Your task to perform on an android device: When is my next appointment? Image 0: 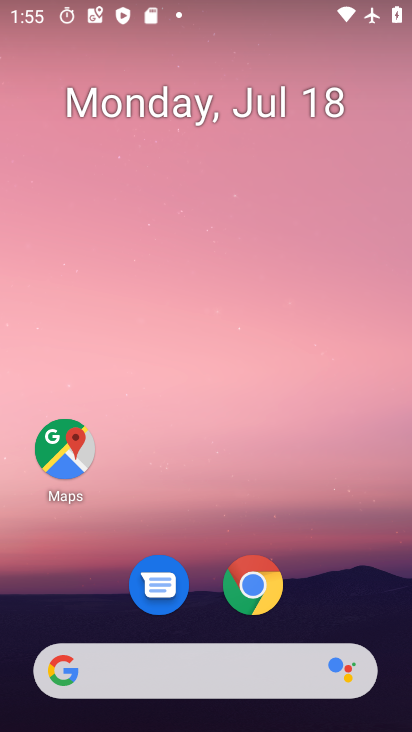
Step 0: press home button
Your task to perform on an android device: When is my next appointment? Image 1: 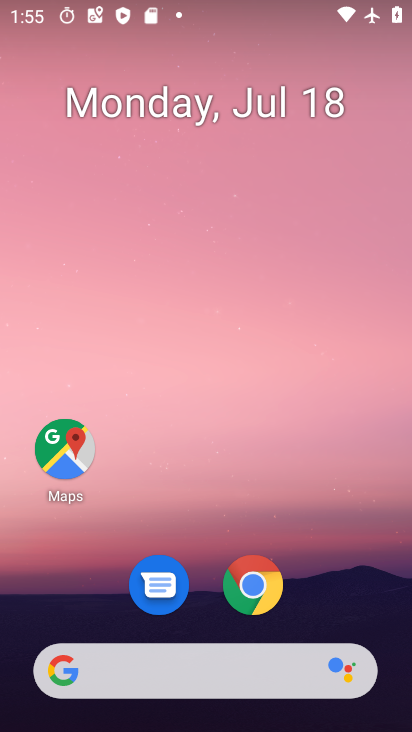
Step 1: drag from (177, 665) to (283, 213)
Your task to perform on an android device: When is my next appointment? Image 2: 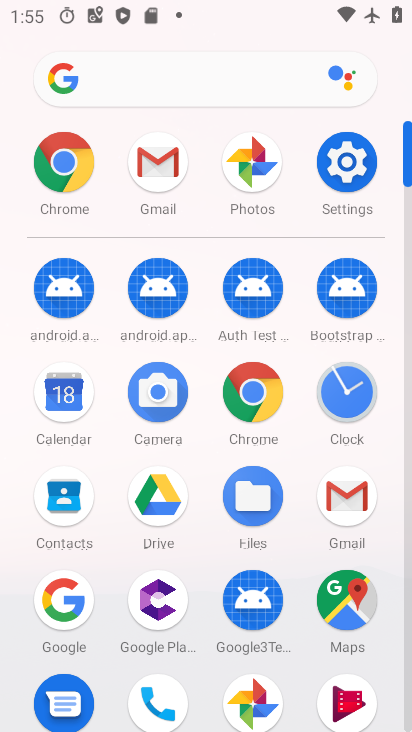
Step 2: click (72, 389)
Your task to perform on an android device: When is my next appointment? Image 3: 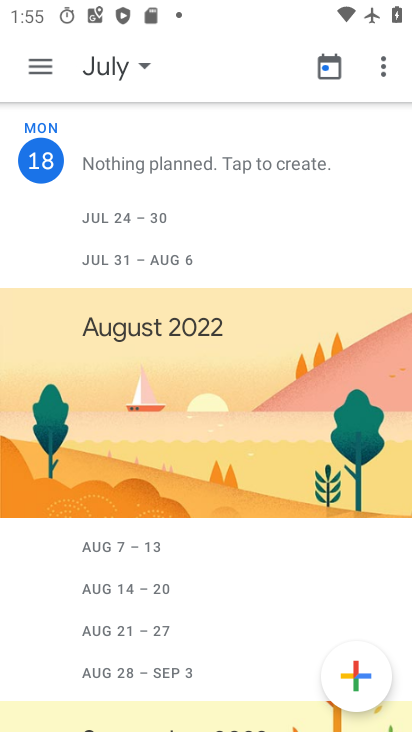
Step 3: task complete